Your task to perform on an android device: turn off location Image 0: 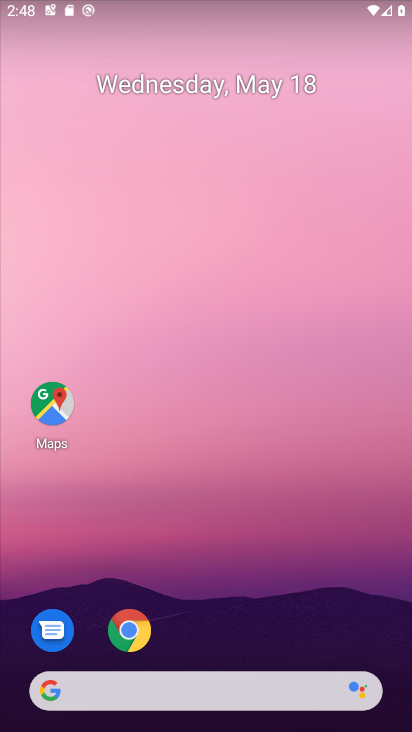
Step 0: press home button
Your task to perform on an android device: turn off location Image 1: 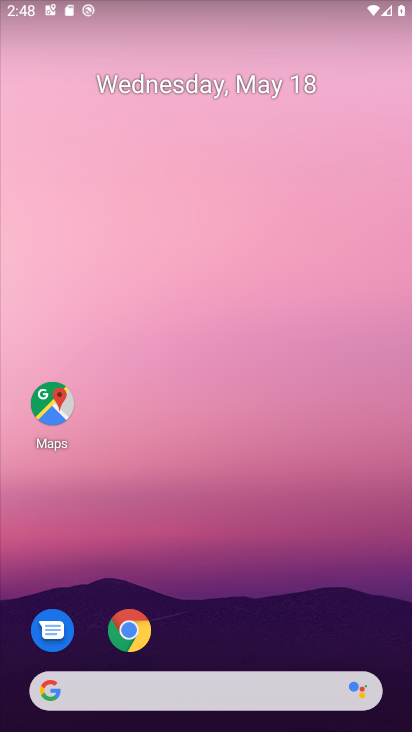
Step 1: drag from (210, 647) to (275, 139)
Your task to perform on an android device: turn off location Image 2: 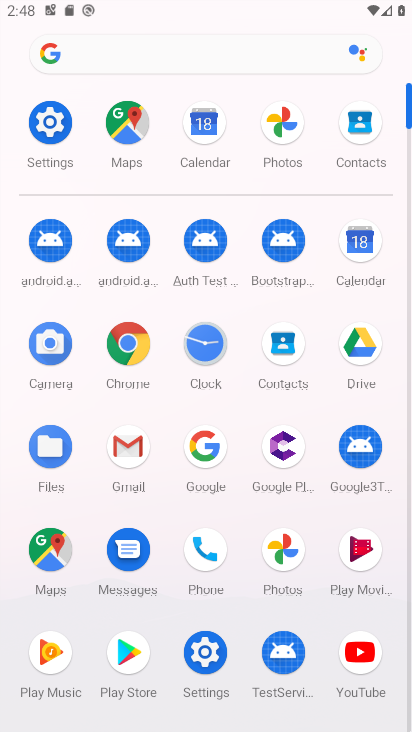
Step 2: click (48, 114)
Your task to perform on an android device: turn off location Image 3: 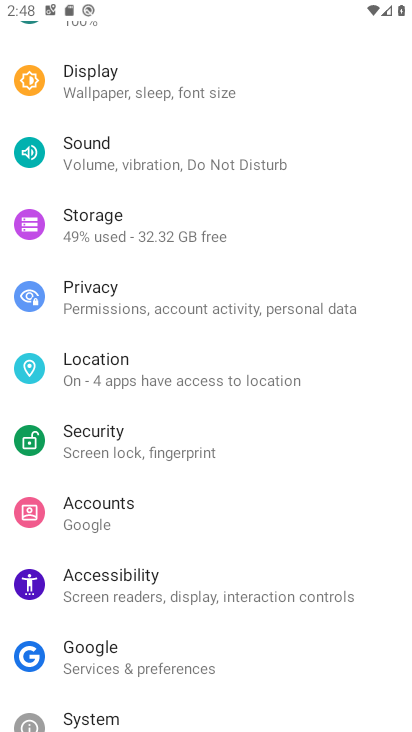
Step 3: click (140, 361)
Your task to perform on an android device: turn off location Image 4: 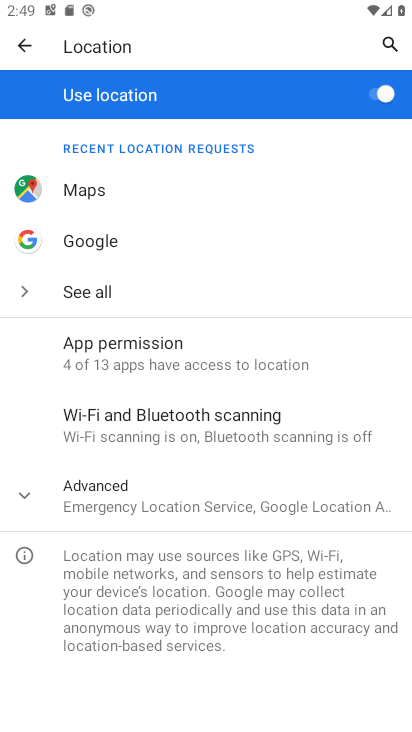
Step 4: click (376, 91)
Your task to perform on an android device: turn off location Image 5: 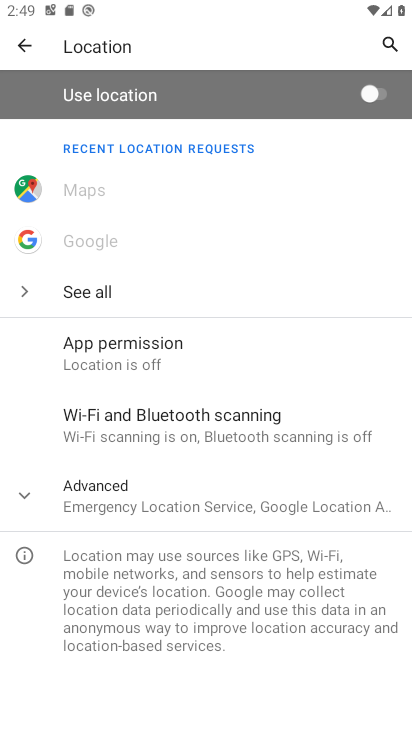
Step 5: task complete